Your task to perform on an android device: Show me popular games on the Play Store Image 0: 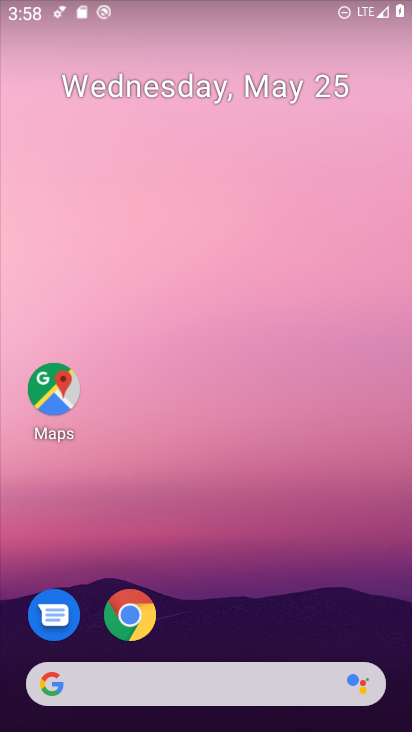
Step 0: drag from (242, 571) to (252, 51)
Your task to perform on an android device: Show me popular games on the Play Store Image 1: 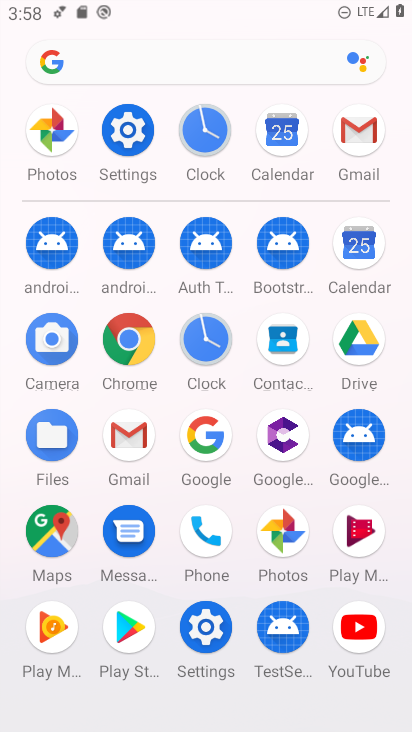
Step 1: click (139, 615)
Your task to perform on an android device: Show me popular games on the Play Store Image 2: 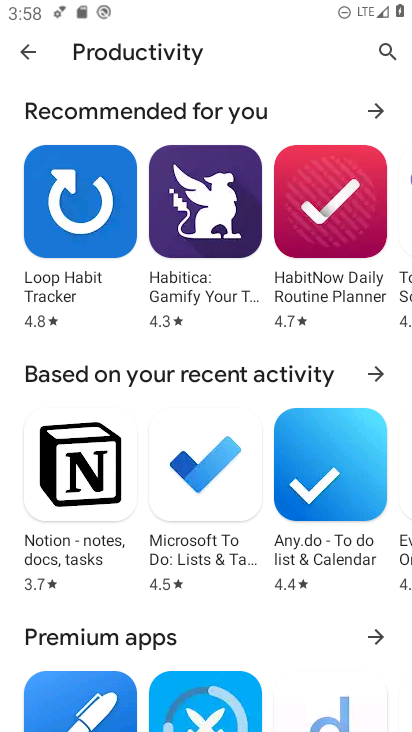
Step 2: click (27, 47)
Your task to perform on an android device: Show me popular games on the Play Store Image 3: 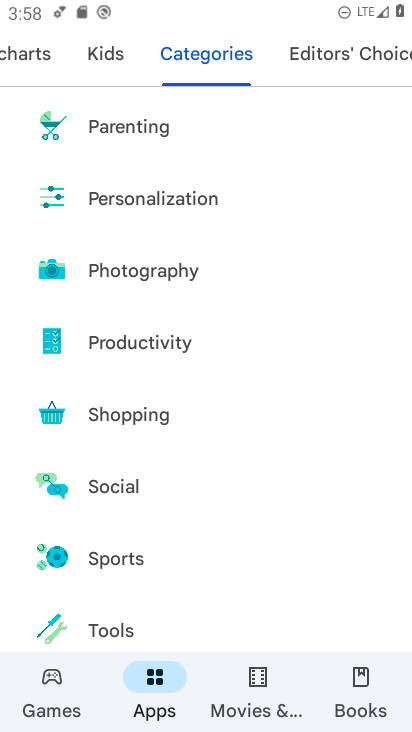
Step 3: click (49, 697)
Your task to perform on an android device: Show me popular games on the Play Store Image 4: 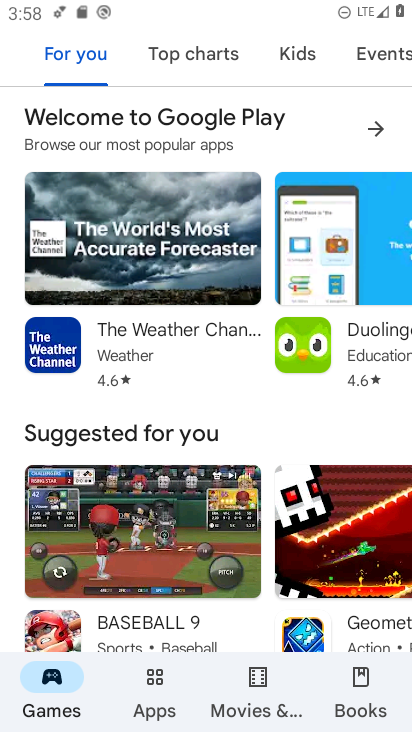
Step 4: drag from (297, 404) to (308, 72)
Your task to perform on an android device: Show me popular games on the Play Store Image 5: 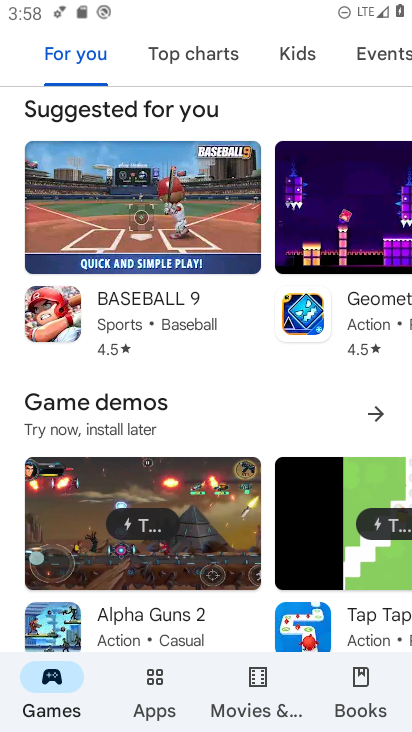
Step 5: drag from (250, 477) to (261, 128)
Your task to perform on an android device: Show me popular games on the Play Store Image 6: 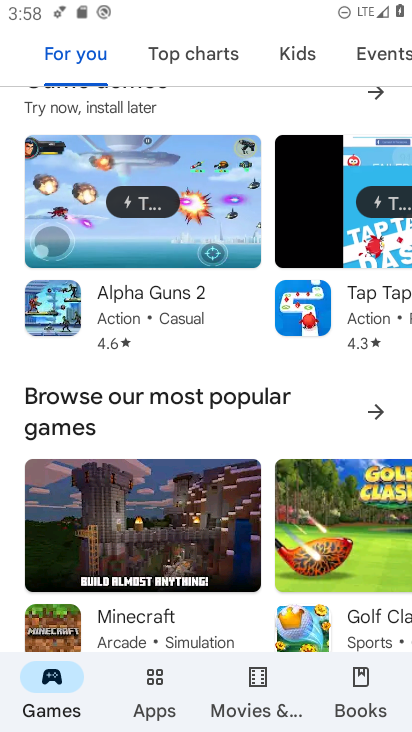
Step 6: click (371, 402)
Your task to perform on an android device: Show me popular games on the Play Store Image 7: 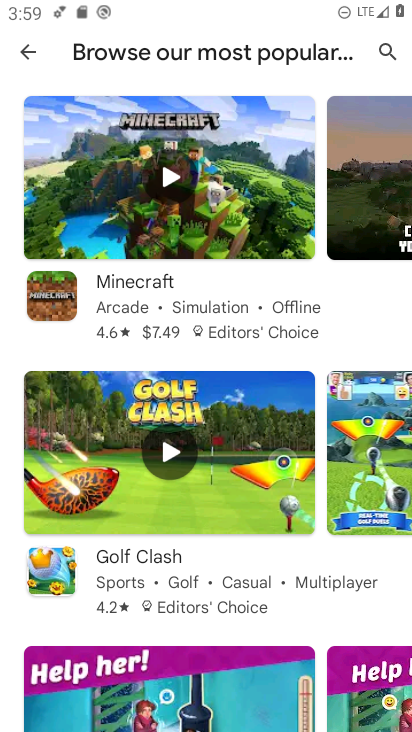
Step 7: task complete